Your task to perform on an android device: change timer sound Image 0: 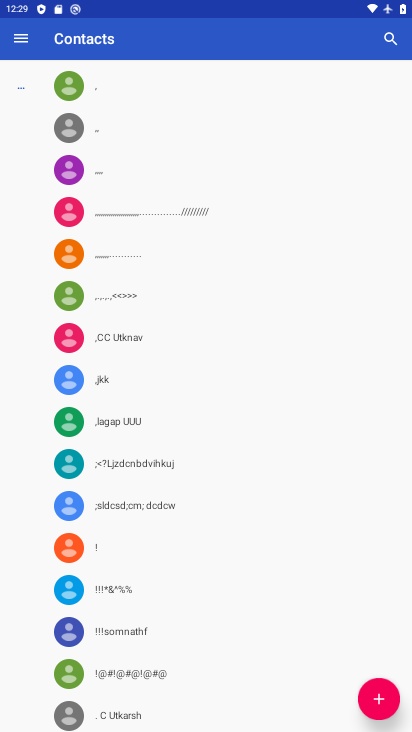
Step 0: press home button
Your task to perform on an android device: change timer sound Image 1: 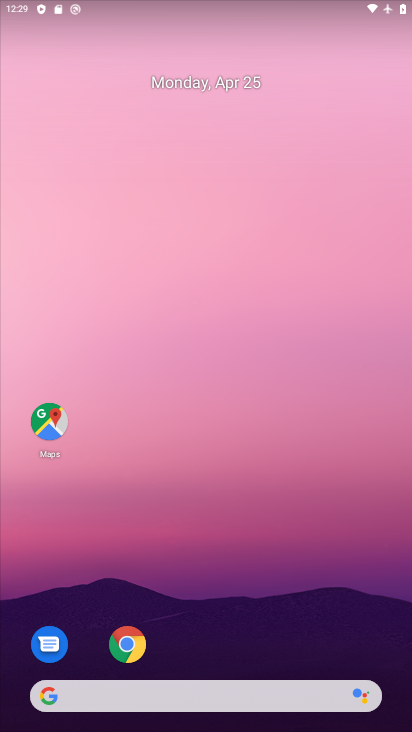
Step 1: drag from (214, 663) to (2, 316)
Your task to perform on an android device: change timer sound Image 2: 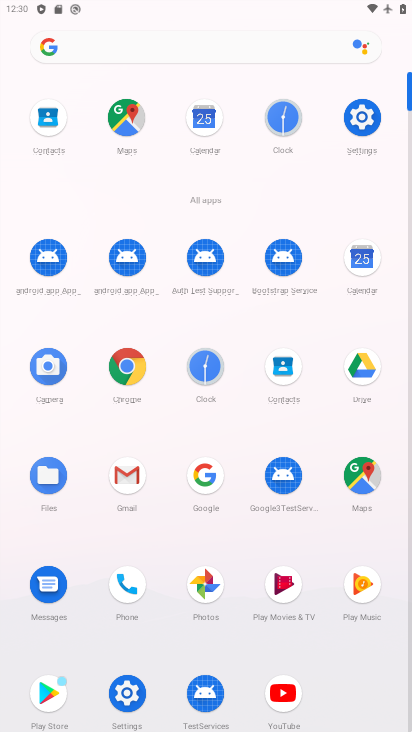
Step 2: click (198, 370)
Your task to perform on an android device: change timer sound Image 3: 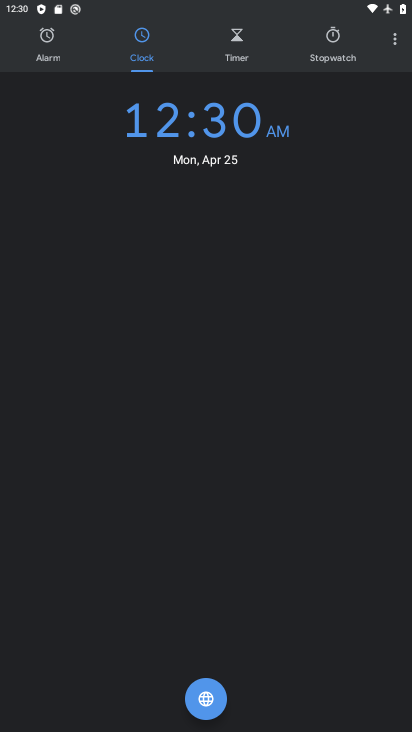
Step 3: click (390, 26)
Your task to perform on an android device: change timer sound Image 4: 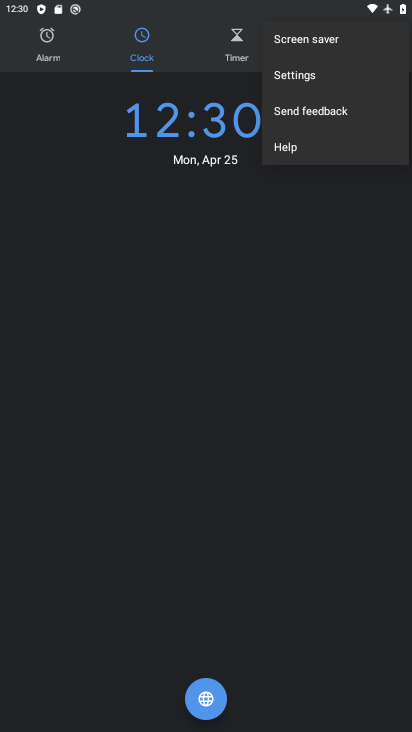
Step 4: click (286, 81)
Your task to perform on an android device: change timer sound Image 5: 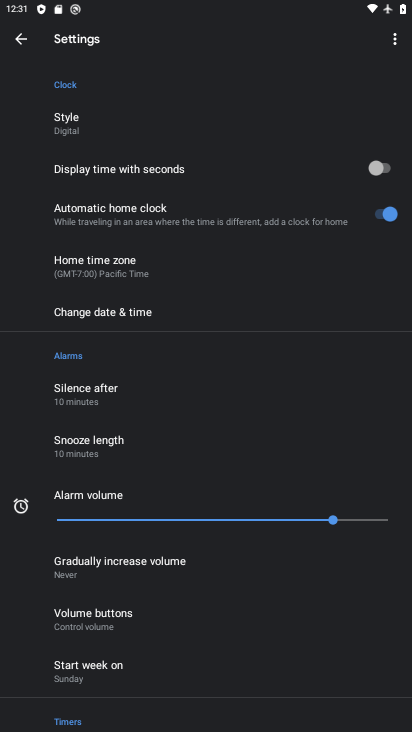
Step 5: drag from (157, 583) to (140, 395)
Your task to perform on an android device: change timer sound Image 6: 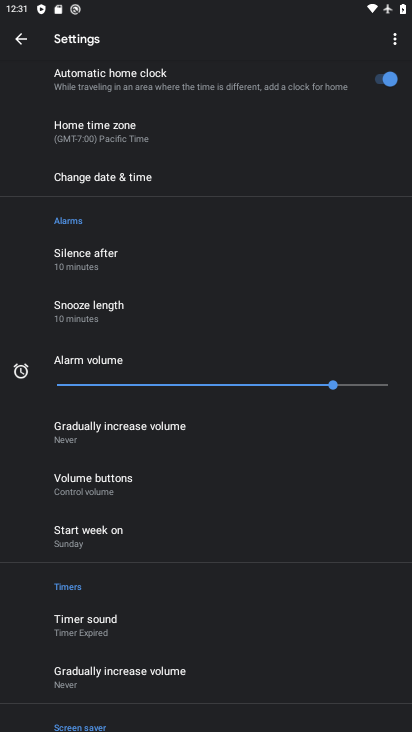
Step 6: click (179, 606)
Your task to perform on an android device: change timer sound Image 7: 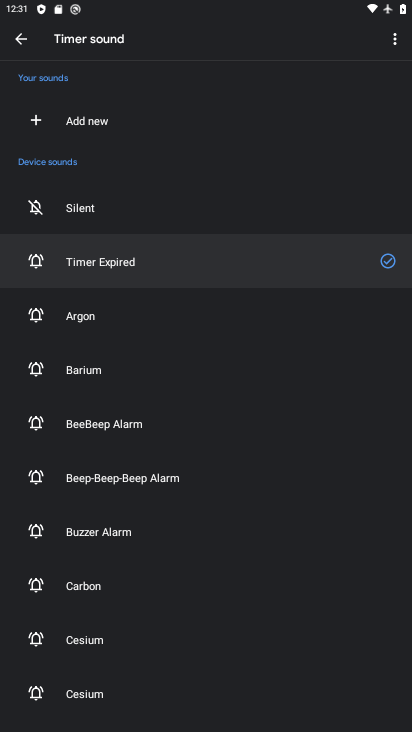
Step 7: click (223, 310)
Your task to perform on an android device: change timer sound Image 8: 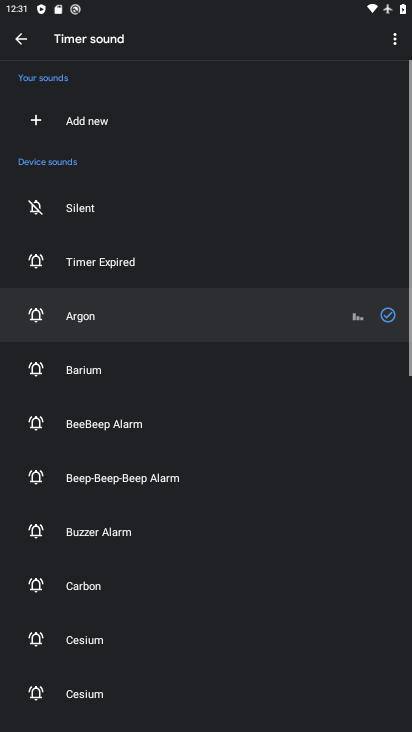
Step 8: task complete